Your task to perform on an android device: check google app version Image 0: 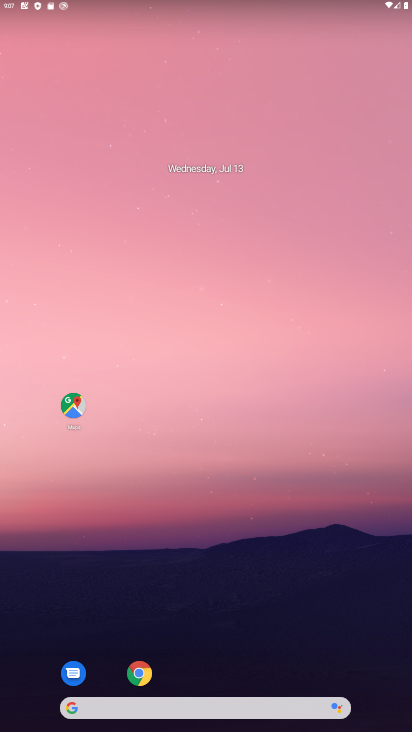
Step 0: click (189, 707)
Your task to perform on an android device: check google app version Image 1: 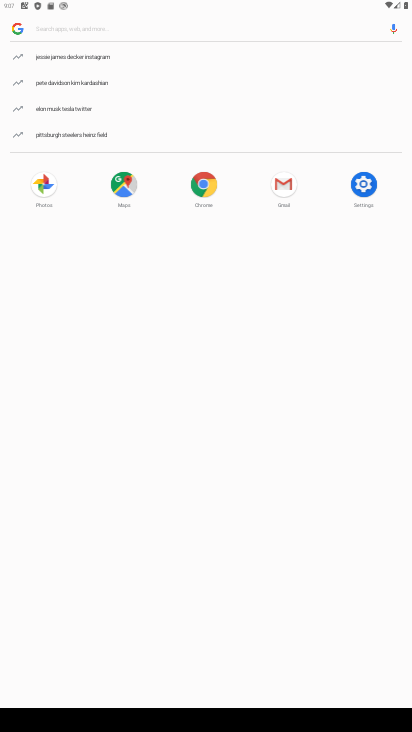
Step 1: click (18, 25)
Your task to perform on an android device: check google app version Image 2: 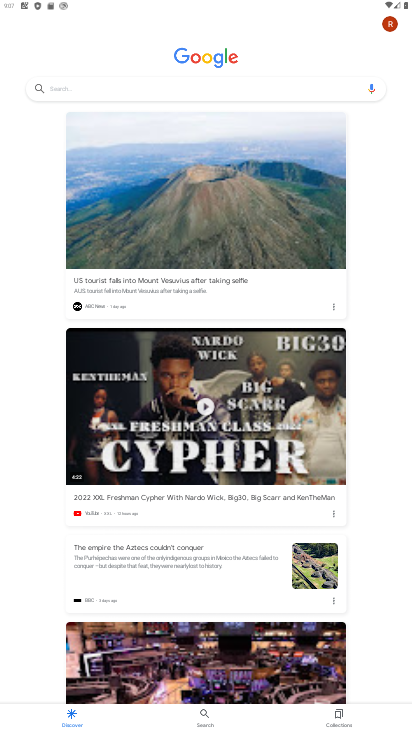
Step 2: click (393, 21)
Your task to perform on an android device: check google app version Image 3: 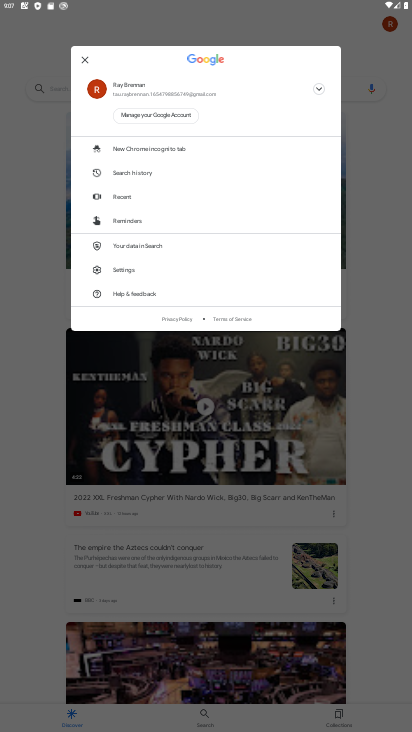
Step 3: click (114, 272)
Your task to perform on an android device: check google app version Image 4: 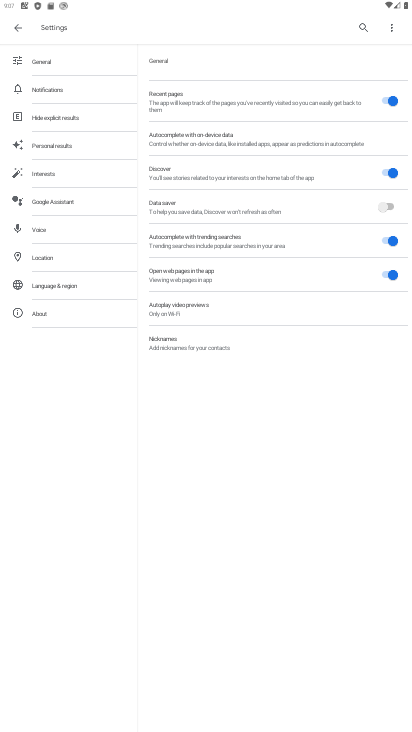
Step 4: click (65, 307)
Your task to perform on an android device: check google app version Image 5: 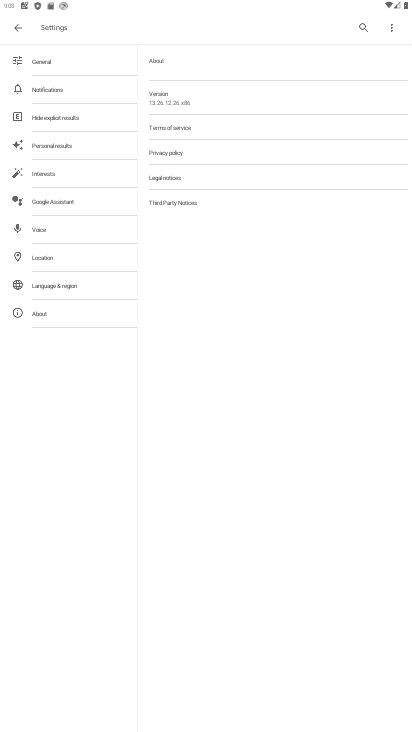
Step 5: task complete